Your task to perform on an android device: set an alarm Image 0: 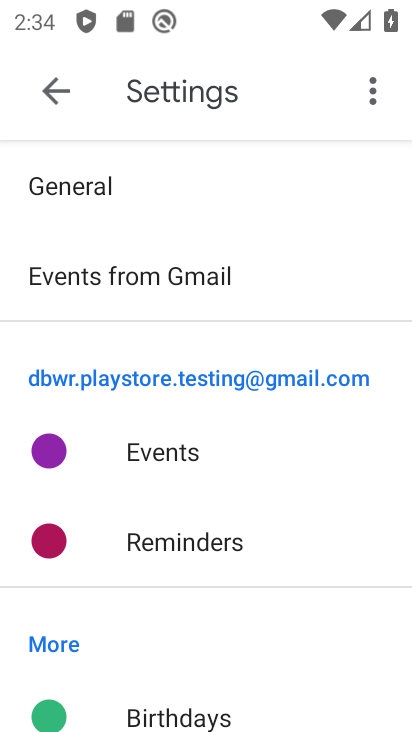
Step 0: press home button
Your task to perform on an android device: set an alarm Image 1: 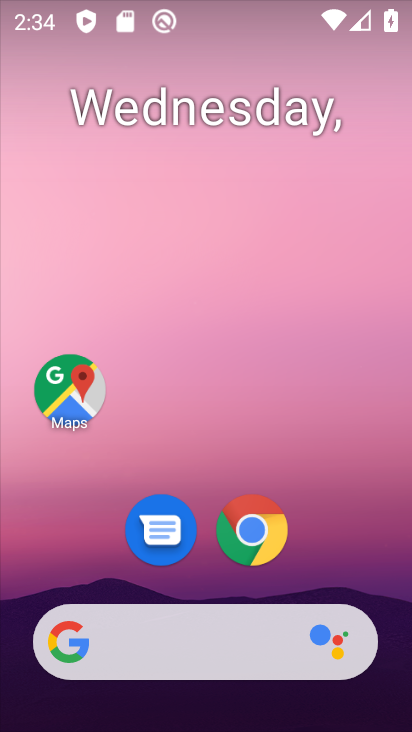
Step 1: drag from (248, 630) to (229, 177)
Your task to perform on an android device: set an alarm Image 2: 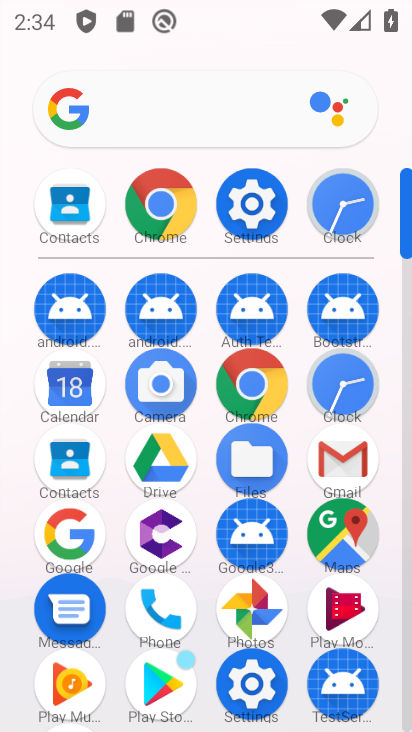
Step 2: click (348, 394)
Your task to perform on an android device: set an alarm Image 3: 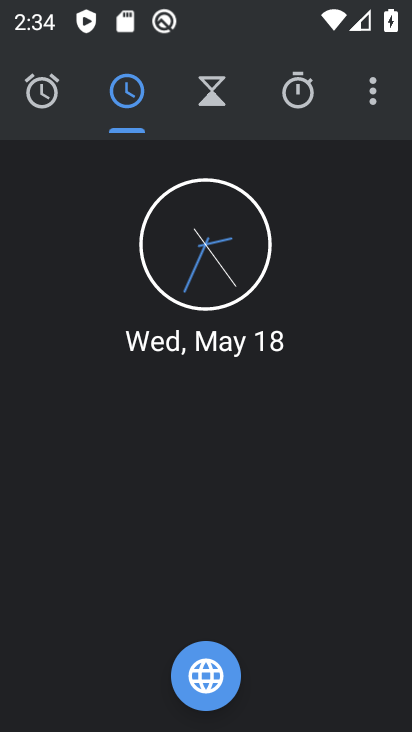
Step 3: click (43, 99)
Your task to perform on an android device: set an alarm Image 4: 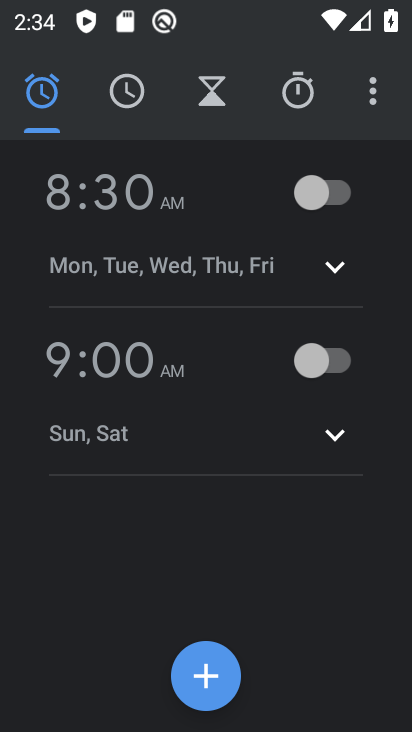
Step 4: click (185, 683)
Your task to perform on an android device: set an alarm Image 5: 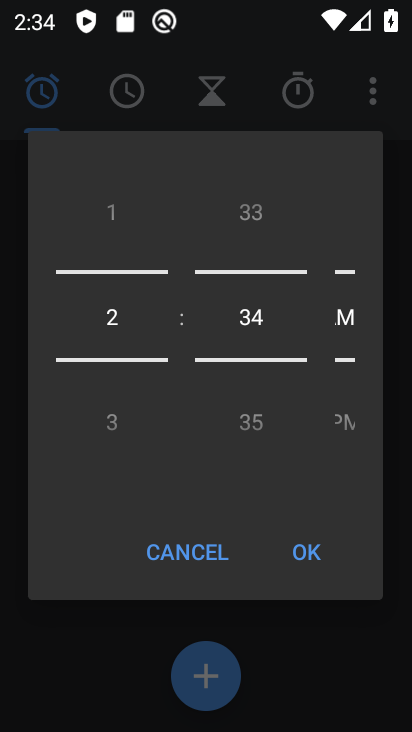
Step 5: drag from (125, 428) to (119, 97)
Your task to perform on an android device: set an alarm Image 6: 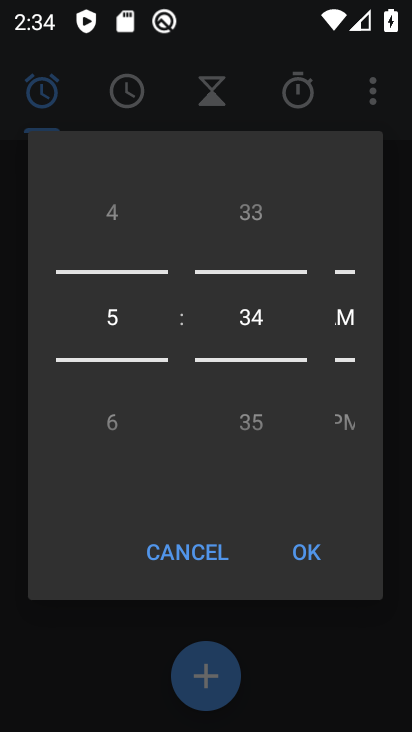
Step 6: click (295, 549)
Your task to perform on an android device: set an alarm Image 7: 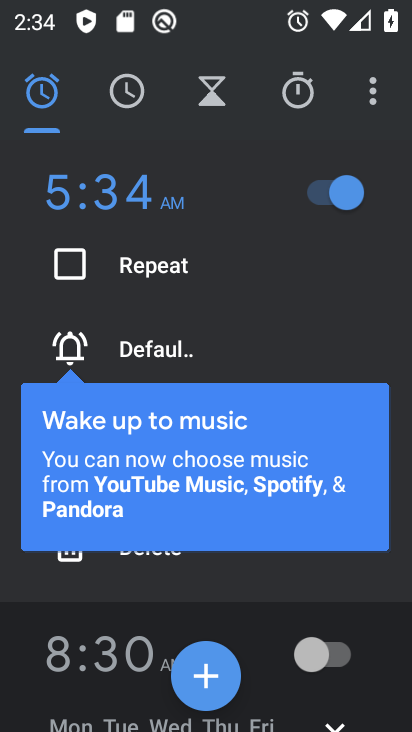
Step 7: task complete